Your task to perform on an android device: toggle javascript in the chrome app Image 0: 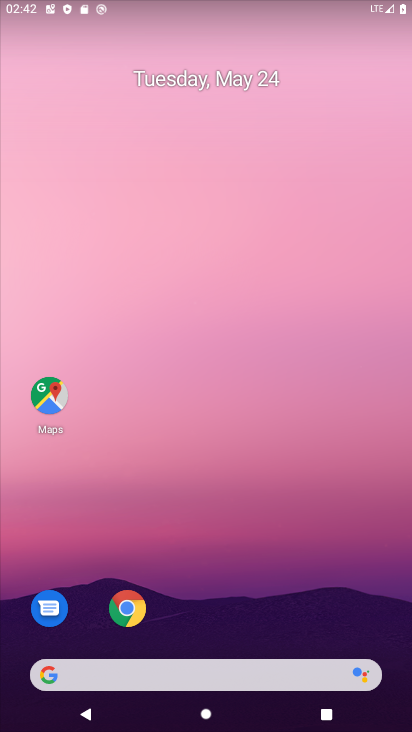
Step 0: drag from (239, 633) to (183, 256)
Your task to perform on an android device: toggle javascript in the chrome app Image 1: 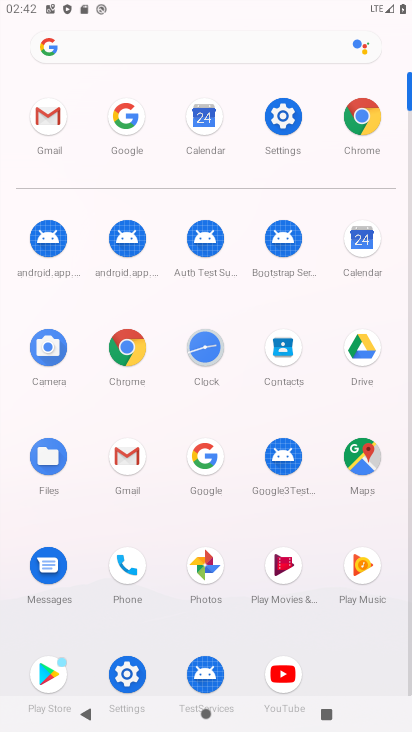
Step 1: click (364, 113)
Your task to perform on an android device: toggle javascript in the chrome app Image 2: 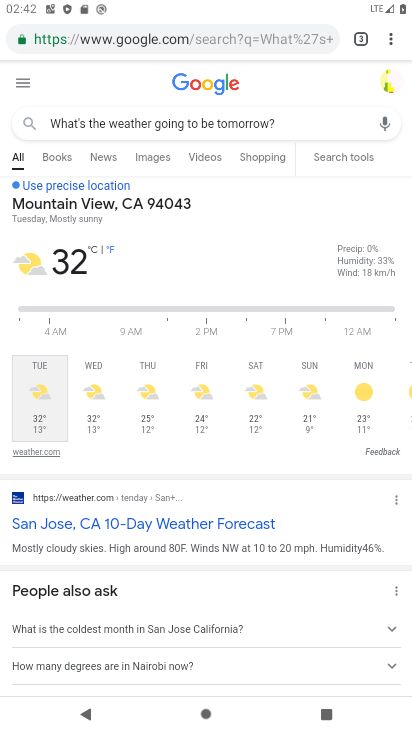
Step 2: click (398, 33)
Your task to perform on an android device: toggle javascript in the chrome app Image 3: 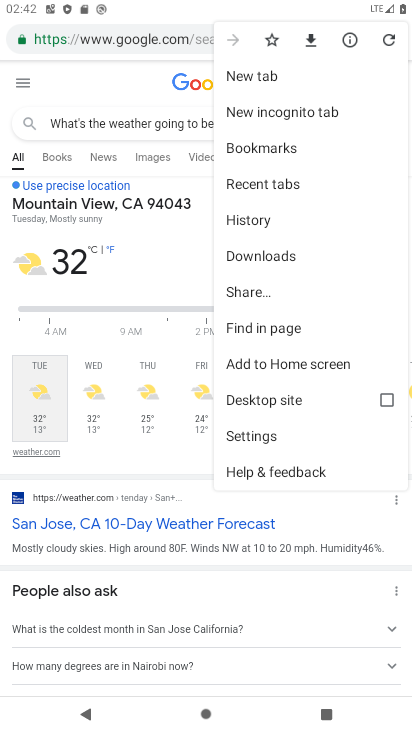
Step 3: click (269, 430)
Your task to perform on an android device: toggle javascript in the chrome app Image 4: 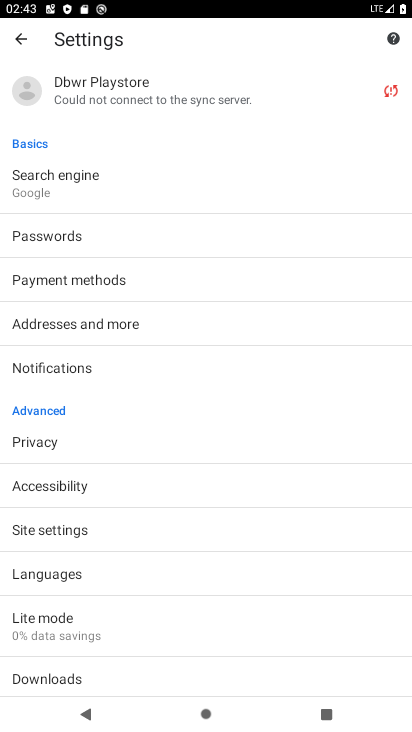
Step 4: click (152, 535)
Your task to perform on an android device: toggle javascript in the chrome app Image 5: 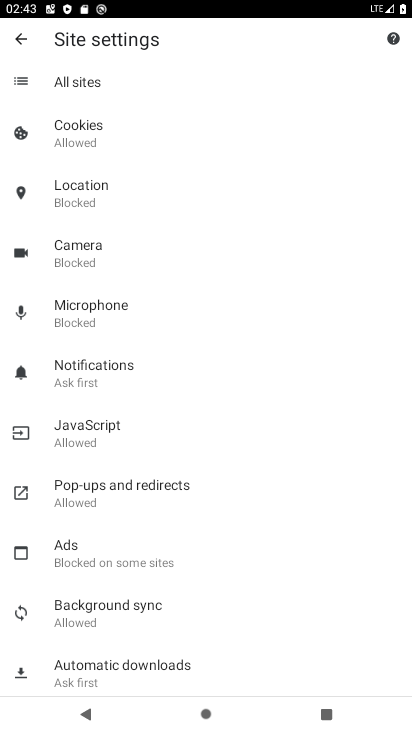
Step 5: click (143, 440)
Your task to perform on an android device: toggle javascript in the chrome app Image 6: 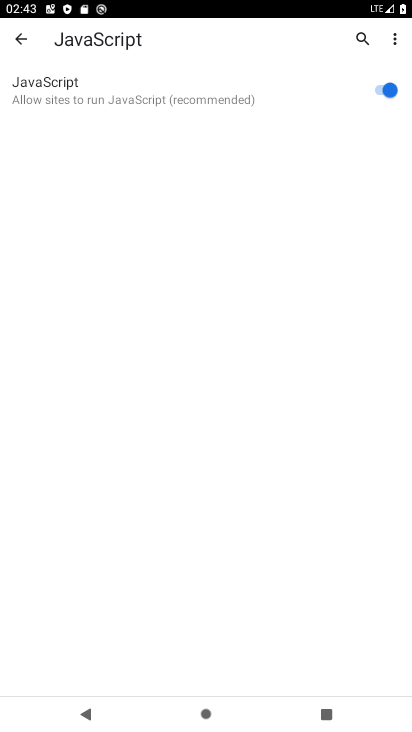
Step 6: click (386, 87)
Your task to perform on an android device: toggle javascript in the chrome app Image 7: 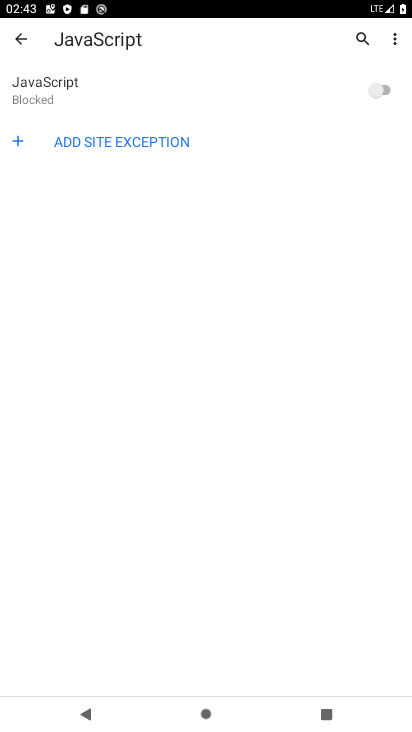
Step 7: task complete